Your task to perform on an android device: see creations saved in the google photos Image 0: 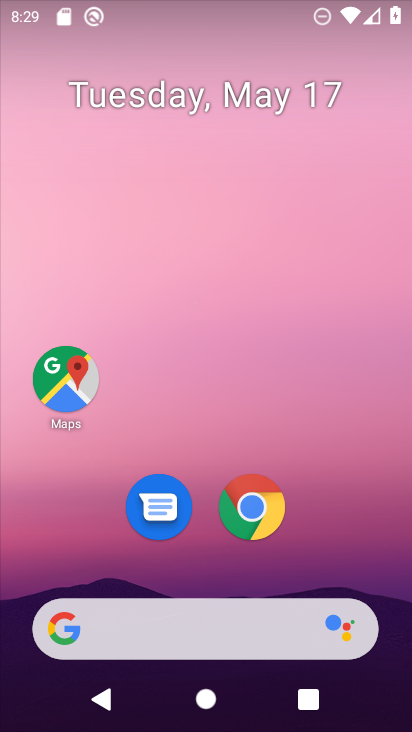
Step 0: drag from (363, 588) to (263, 15)
Your task to perform on an android device: see creations saved in the google photos Image 1: 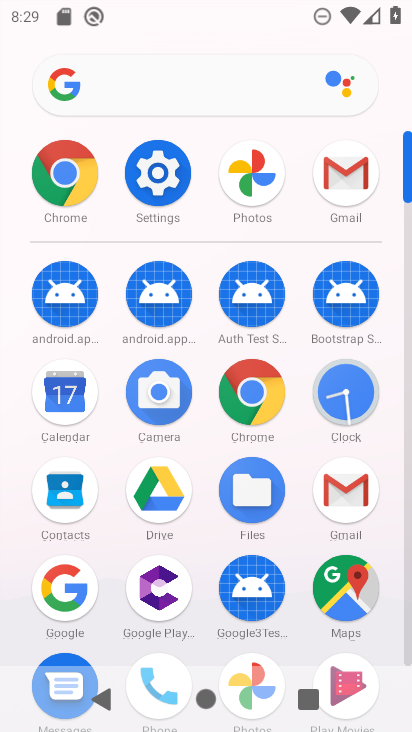
Step 1: click (240, 175)
Your task to perform on an android device: see creations saved in the google photos Image 2: 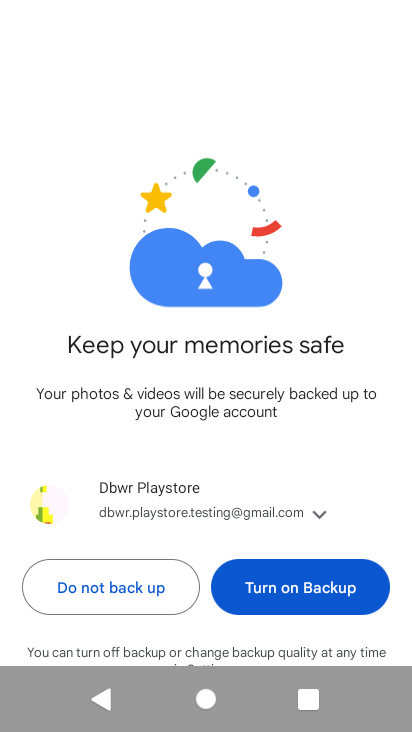
Step 2: click (291, 588)
Your task to perform on an android device: see creations saved in the google photos Image 3: 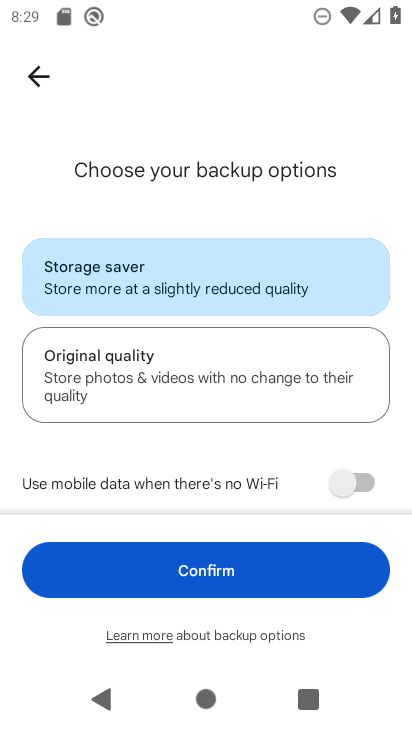
Step 3: click (212, 568)
Your task to perform on an android device: see creations saved in the google photos Image 4: 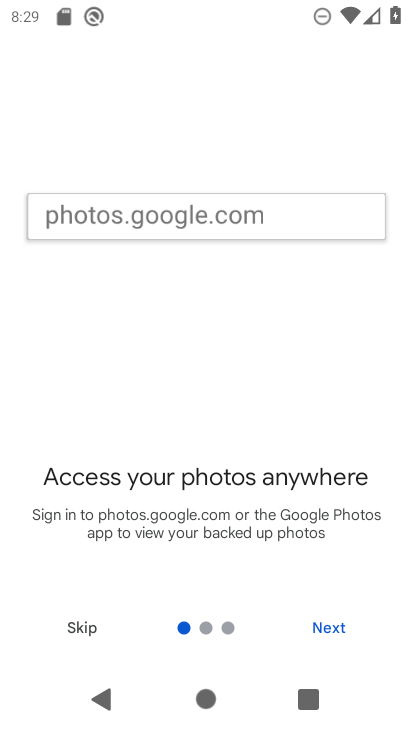
Step 4: click (88, 627)
Your task to perform on an android device: see creations saved in the google photos Image 5: 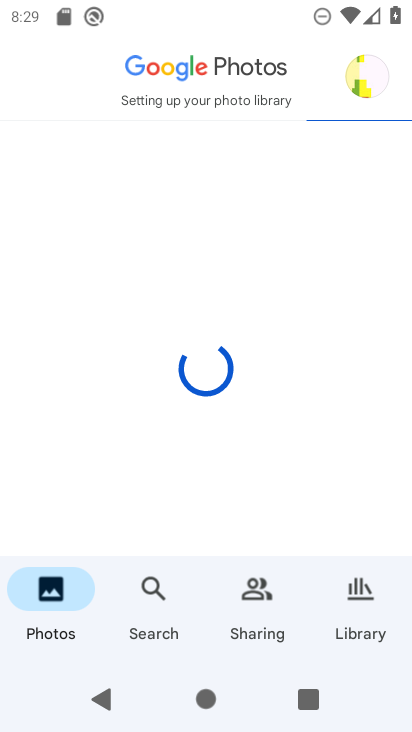
Step 5: click (159, 77)
Your task to perform on an android device: see creations saved in the google photos Image 6: 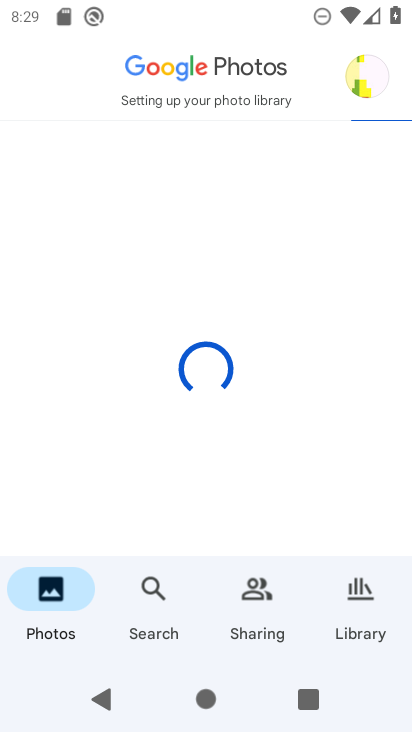
Step 6: click (202, 77)
Your task to perform on an android device: see creations saved in the google photos Image 7: 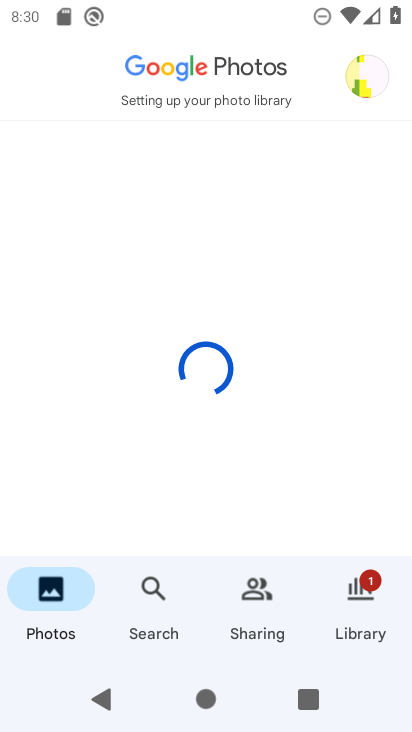
Step 7: click (178, 98)
Your task to perform on an android device: see creations saved in the google photos Image 8: 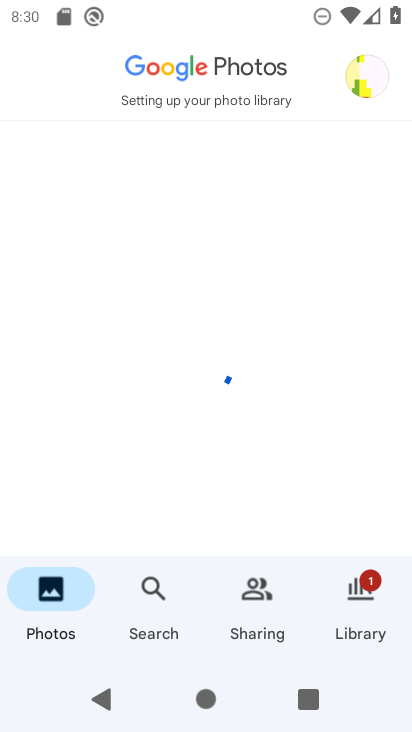
Step 8: click (194, 66)
Your task to perform on an android device: see creations saved in the google photos Image 9: 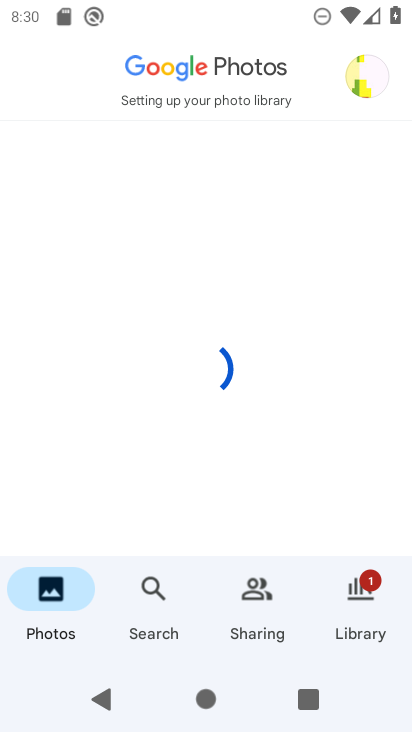
Step 9: click (347, 74)
Your task to perform on an android device: see creations saved in the google photos Image 10: 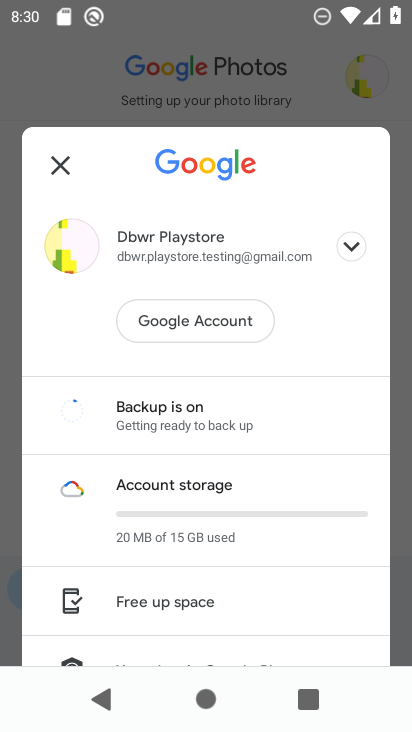
Step 10: task complete